Your task to perform on an android device: create a new album in the google photos Image 0: 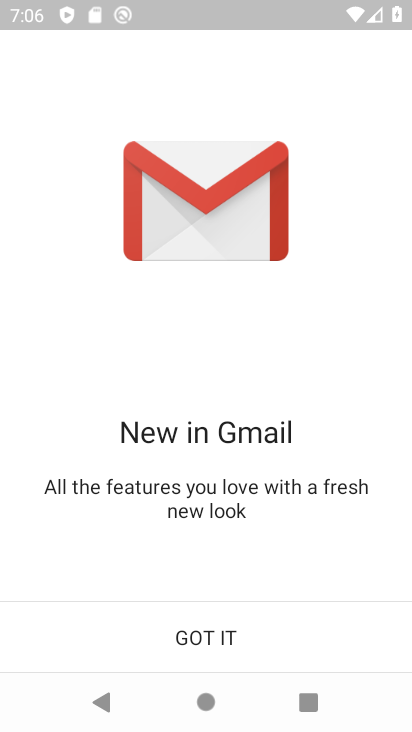
Step 0: press home button
Your task to perform on an android device: create a new album in the google photos Image 1: 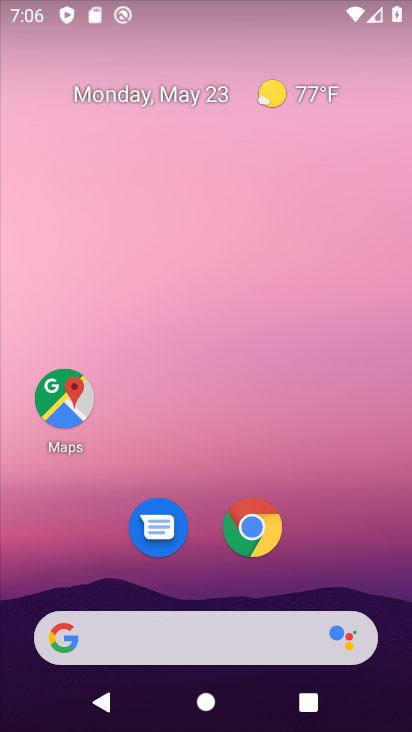
Step 1: drag from (282, 671) to (279, 133)
Your task to perform on an android device: create a new album in the google photos Image 2: 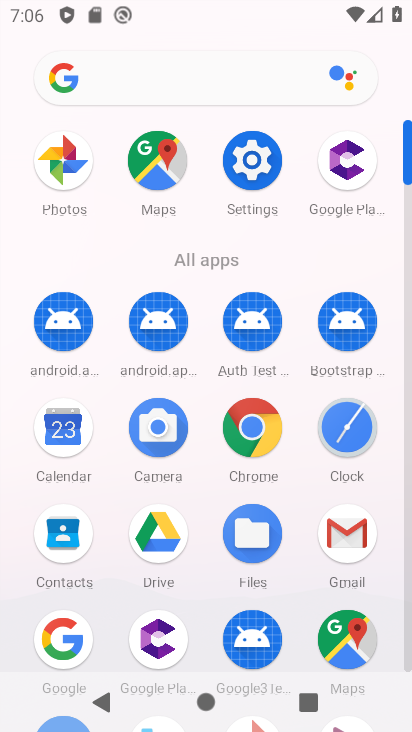
Step 2: drag from (197, 576) to (201, 470)
Your task to perform on an android device: create a new album in the google photos Image 3: 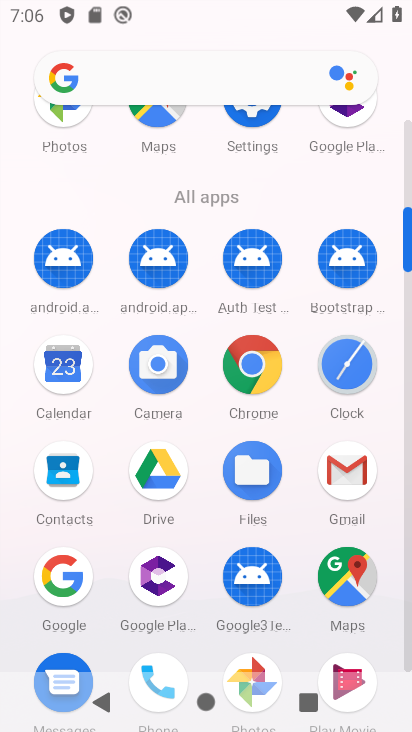
Step 3: click (249, 656)
Your task to perform on an android device: create a new album in the google photos Image 4: 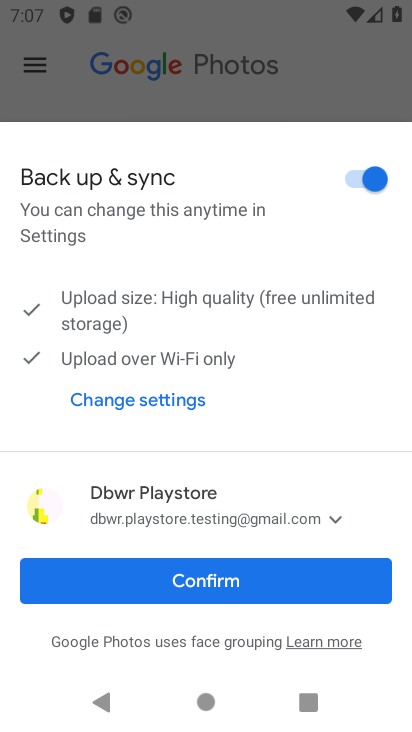
Step 4: click (214, 559)
Your task to perform on an android device: create a new album in the google photos Image 5: 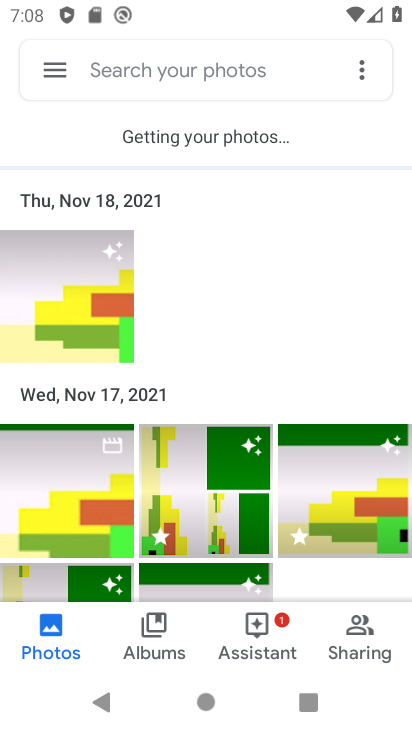
Step 5: click (194, 497)
Your task to perform on an android device: create a new album in the google photos Image 6: 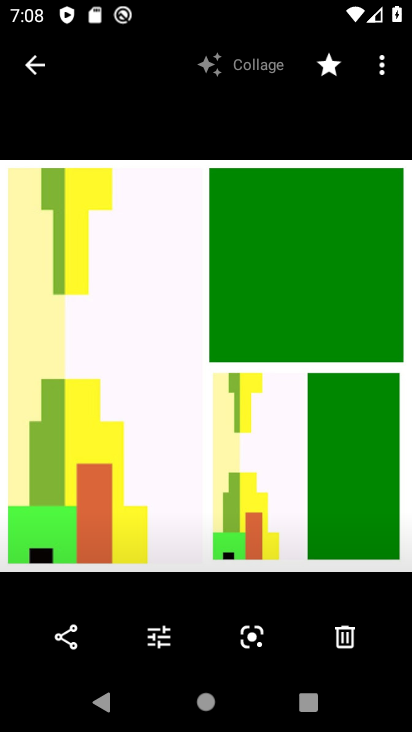
Step 6: click (373, 72)
Your task to perform on an android device: create a new album in the google photos Image 7: 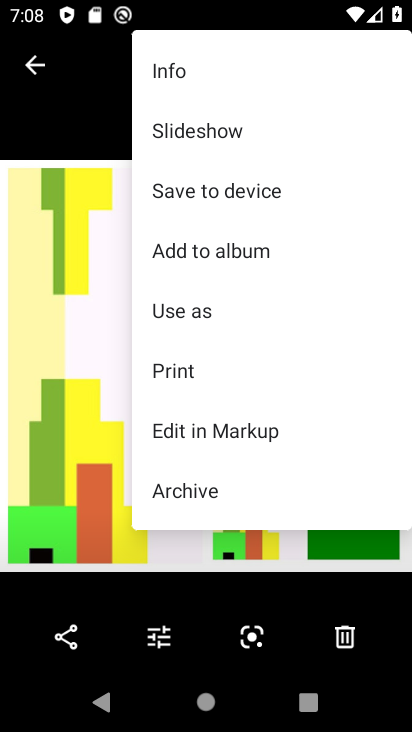
Step 7: click (210, 240)
Your task to perform on an android device: create a new album in the google photos Image 8: 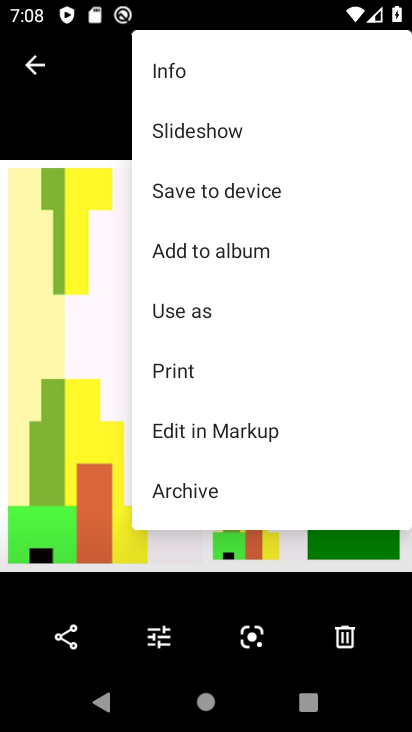
Step 8: click (190, 240)
Your task to perform on an android device: create a new album in the google photos Image 9: 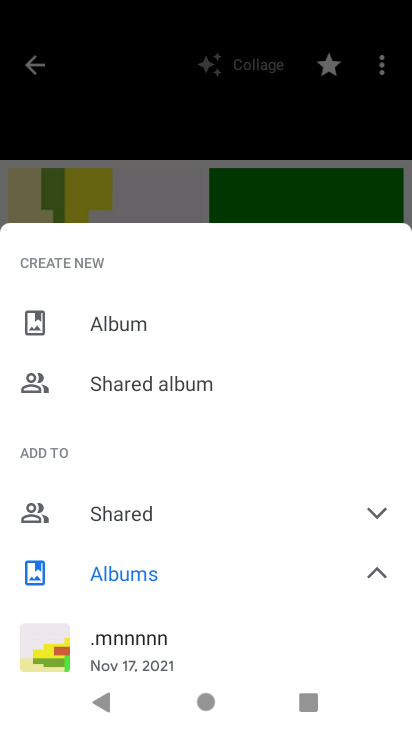
Step 9: click (107, 327)
Your task to perform on an android device: create a new album in the google photos Image 10: 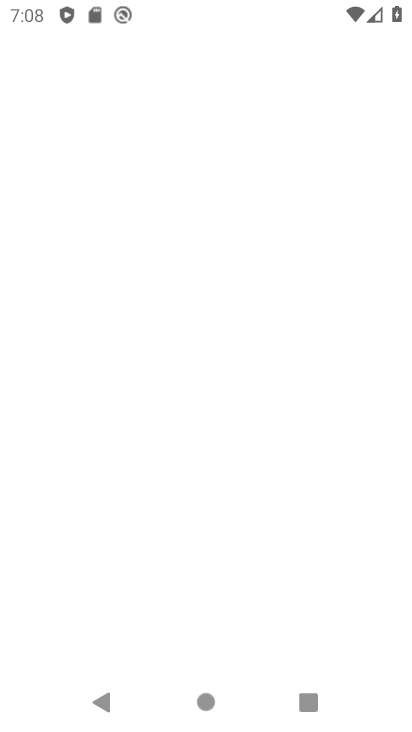
Step 10: task complete